Your task to perform on an android device: empty trash in the gmail app Image 0: 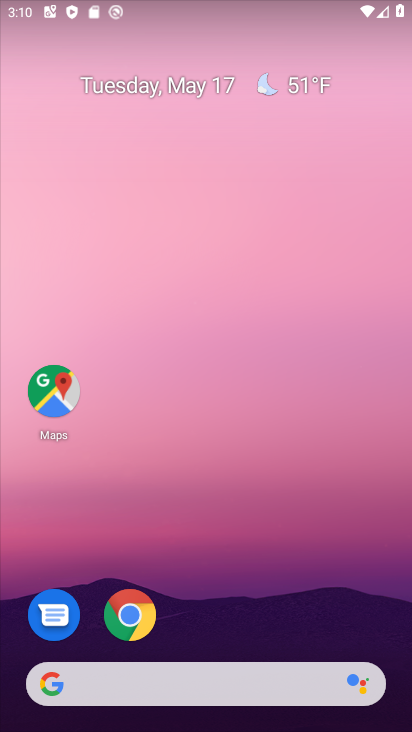
Step 0: drag from (214, 615) to (316, 255)
Your task to perform on an android device: empty trash in the gmail app Image 1: 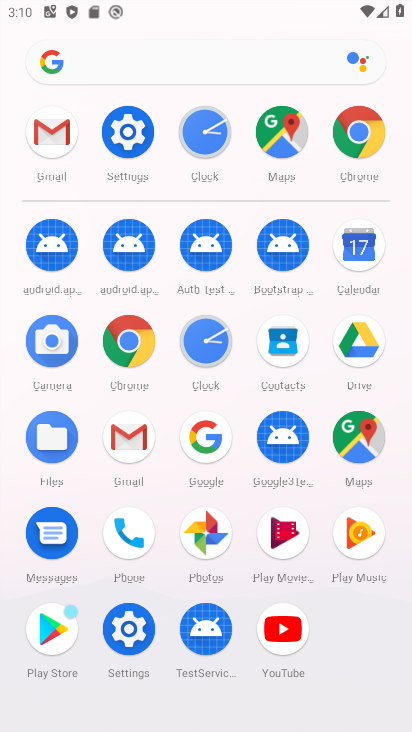
Step 1: click (130, 433)
Your task to perform on an android device: empty trash in the gmail app Image 2: 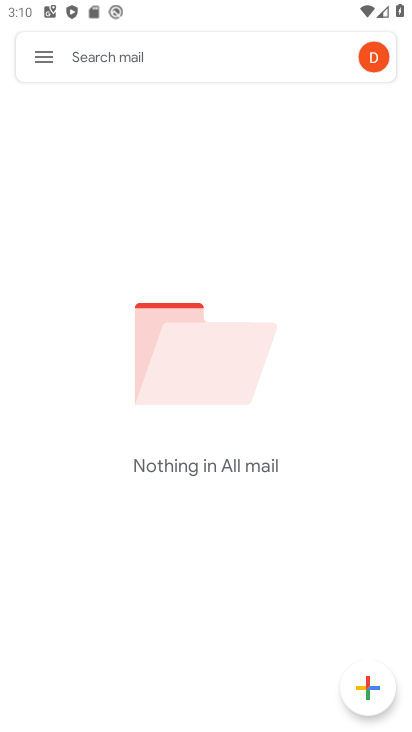
Step 2: click (38, 57)
Your task to perform on an android device: empty trash in the gmail app Image 3: 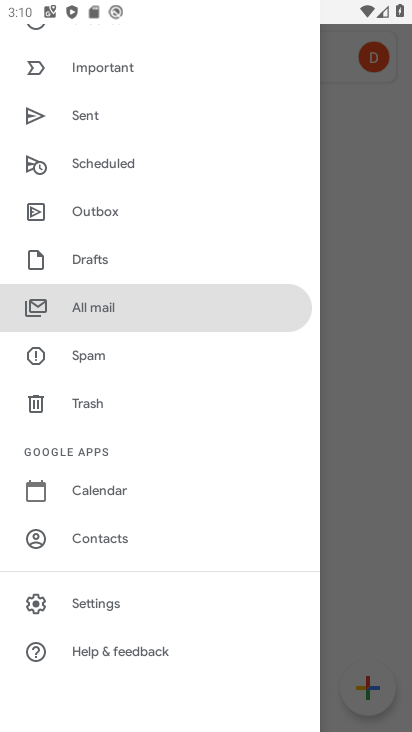
Step 3: click (109, 401)
Your task to perform on an android device: empty trash in the gmail app Image 4: 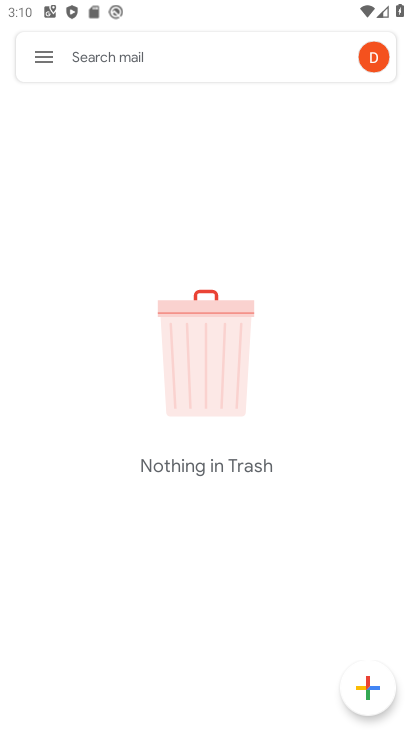
Step 4: task complete